Your task to perform on an android device: What's the weather? Image 0: 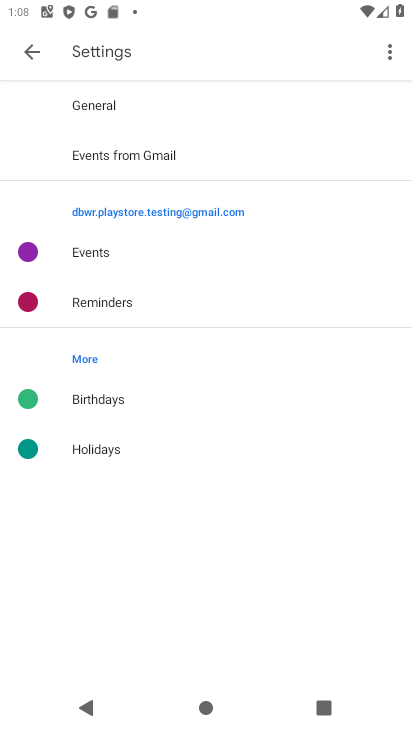
Step 0: press home button
Your task to perform on an android device: What's the weather? Image 1: 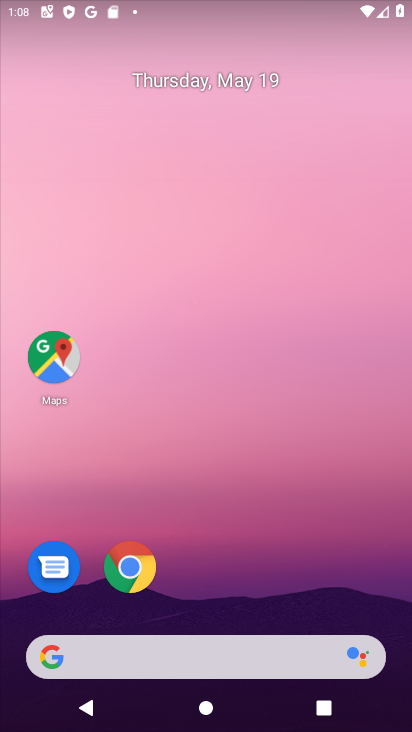
Step 1: drag from (290, 524) to (256, 48)
Your task to perform on an android device: What's the weather? Image 2: 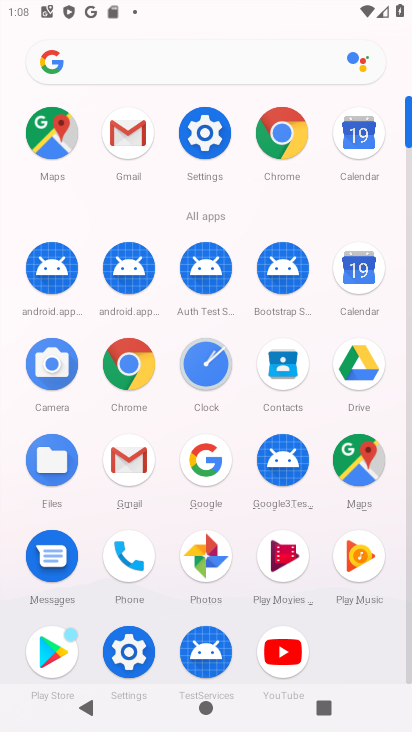
Step 2: click (200, 472)
Your task to perform on an android device: What's the weather? Image 3: 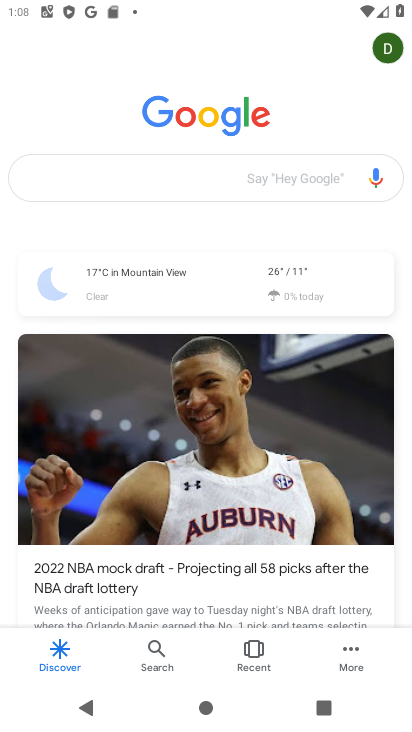
Step 3: click (116, 290)
Your task to perform on an android device: What's the weather? Image 4: 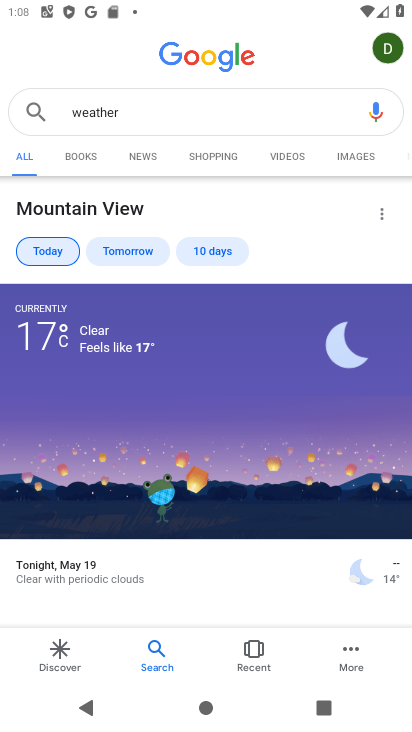
Step 4: task complete